Your task to perform on an android device: search for starred emails in the gmail app Image 0: 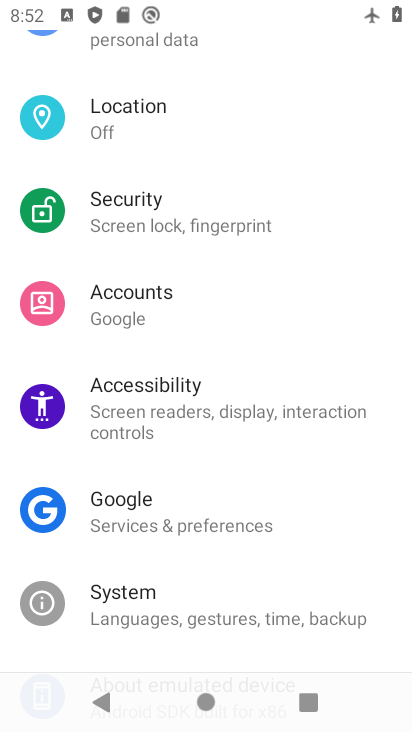
Step 0: press home button
Your task to perform on an android device: search for starred emails in the gmail app Image 1: 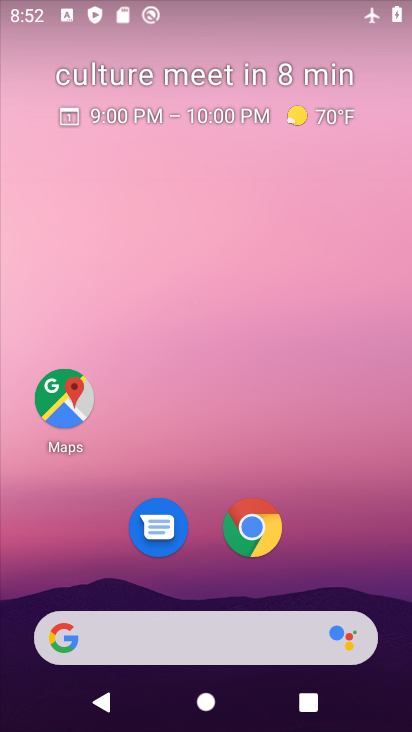
Step 1: drag from (183, 583) to (210, 157)
Your task to perform on an android device: search for starred emails in the gmail app Image 2: 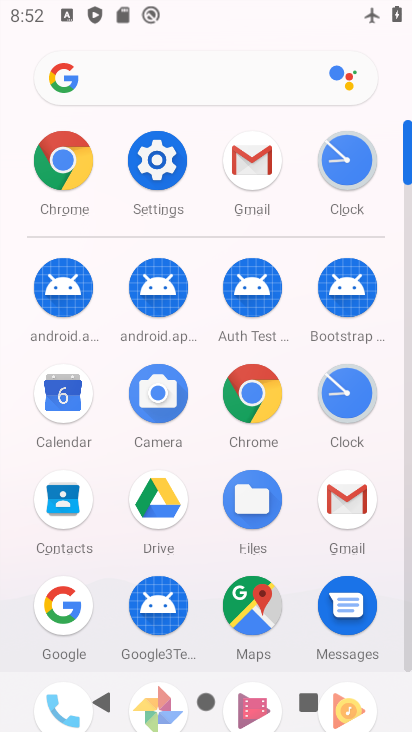
Step 2: click (337, 519)
Your task to perform on an android device: search for starred emails in the gmail app Image 3: 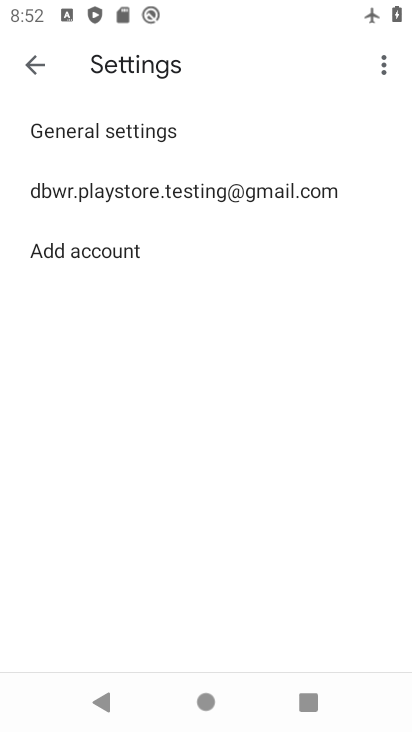
Step 3: click (35, 65)
Your task to perform on an android device: search for starred emails in the gmail app Image 4: 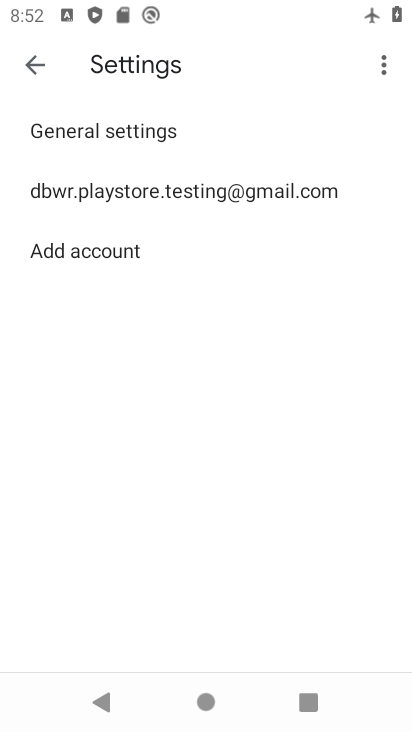
Step 4: click (46, 71)
Your task to perform on an android device: search for starred emails in the gmail app Image 5: 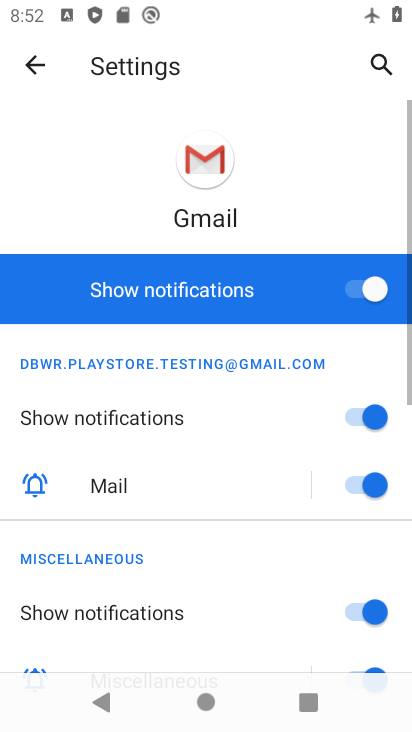
Step 5: click (46, 80)
Your task to perform on an android device: search for starred emails in the gmail app Image 6: 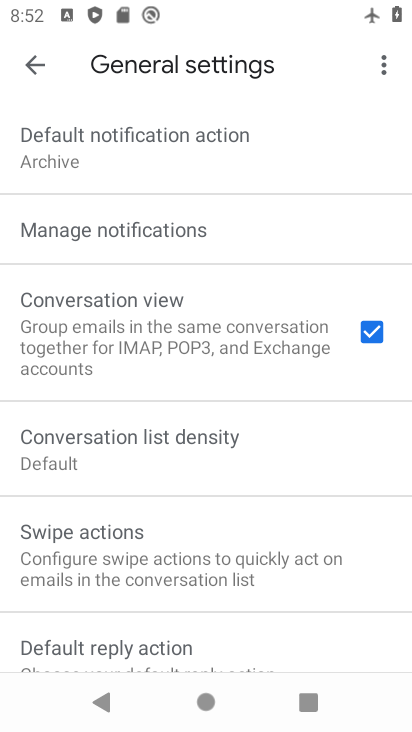
Step 6: click (46, 80)
Your task to perform on an android device: search for starred emails in the gmail app Image 7: 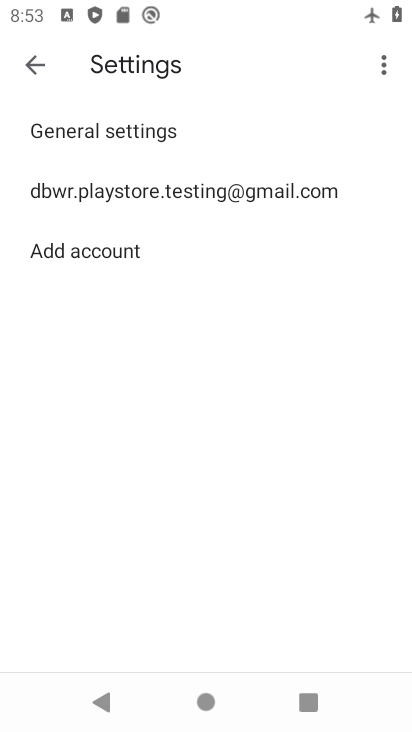
Step 7: click (46, 80)
Your task to perform on an android device: search for starred emails in the gmail app Image 8: 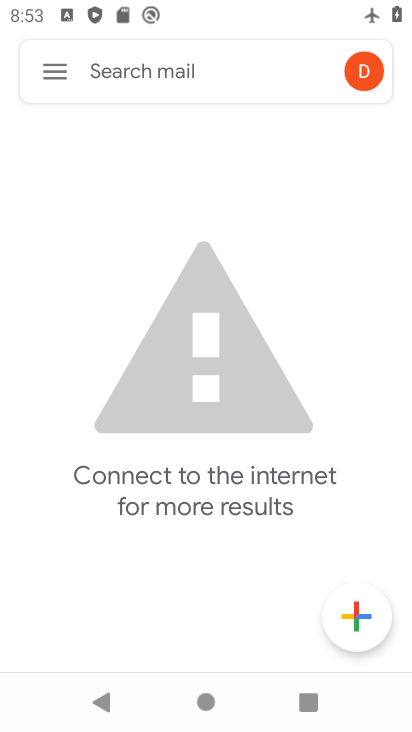
Step 8: click (54, 71)
Your task to perform on an android device: search for starred emails in the gmail app Image 9: 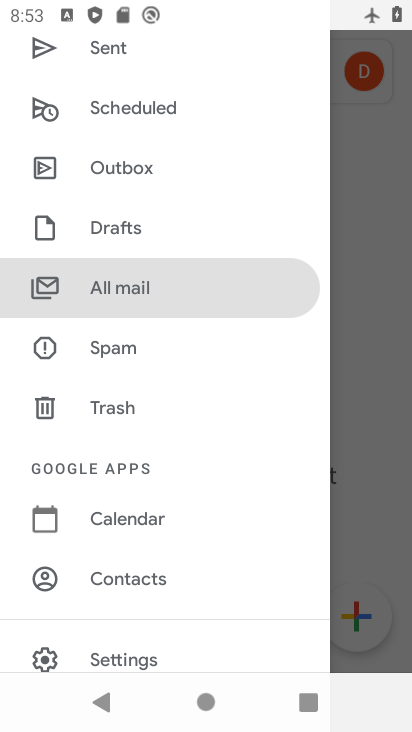
Step 9: drag from (158, 194) to (152, 532)
Your task to perform on an android device: search for starred emails in the gmail app Image 10: 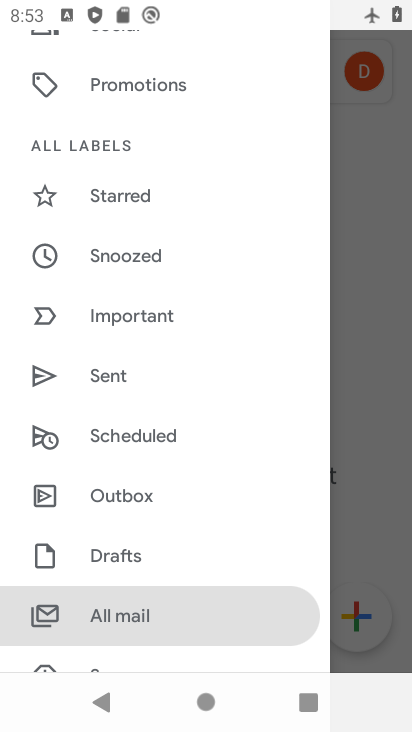
Step 10: click (122, 196)
Your task to perform on an android device: search for starred emails in the gmail app Image 11: 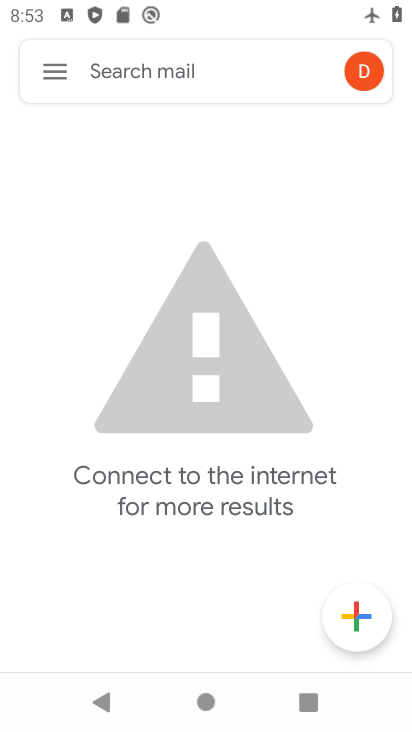
Step 11: task complete